Your task to perform on an android device: open device folders in google photos Image 0: 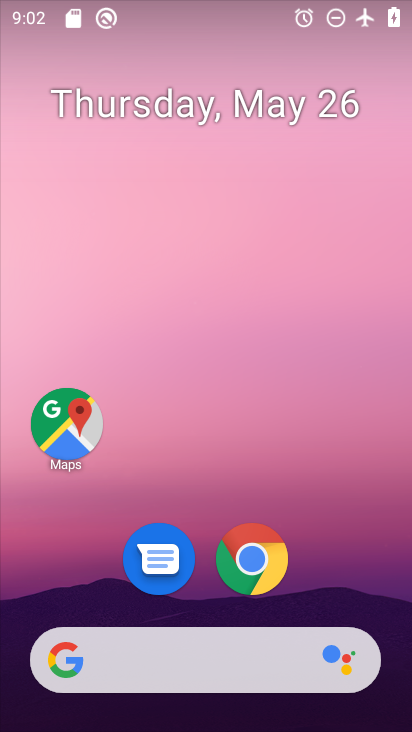
Step 0: drag from (201, 603) to (200, 81)
Your task to perform on an android device: open device folders in google photos Image 1: 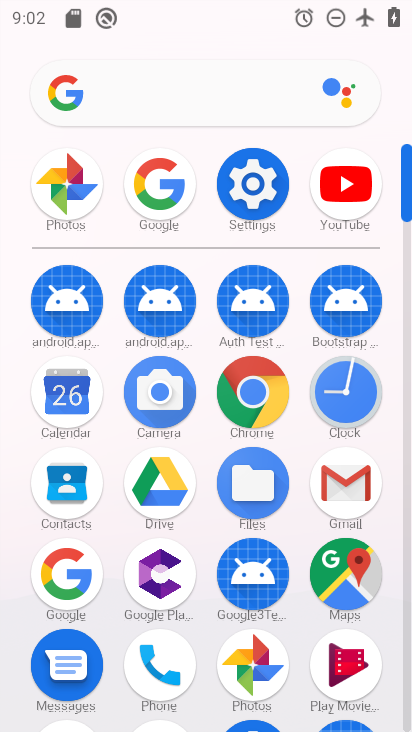
Step 1: click (66, 203)
Your task to perform on an android device: open device folders in google photos Image 2: 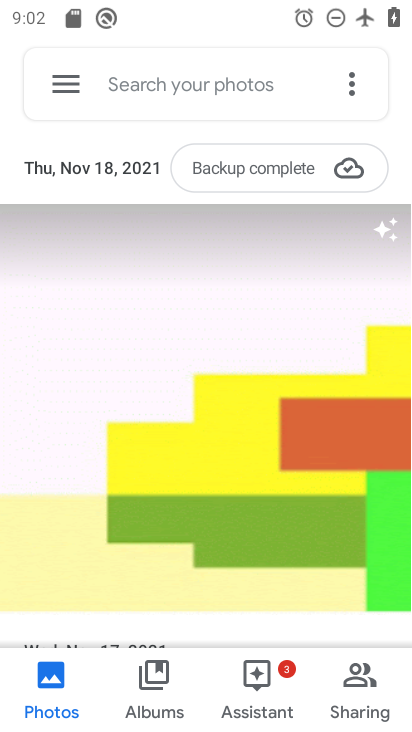
Step 2: click (66, 85)
Your task to perform on an android device: open device folders in google photos Image 3: 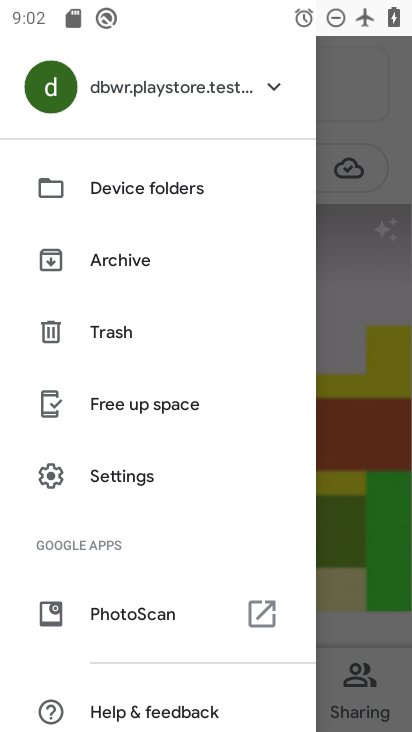
Step 3: click (139, 188)
Your task to perform on an android device: open device folders in google photos Image 4: 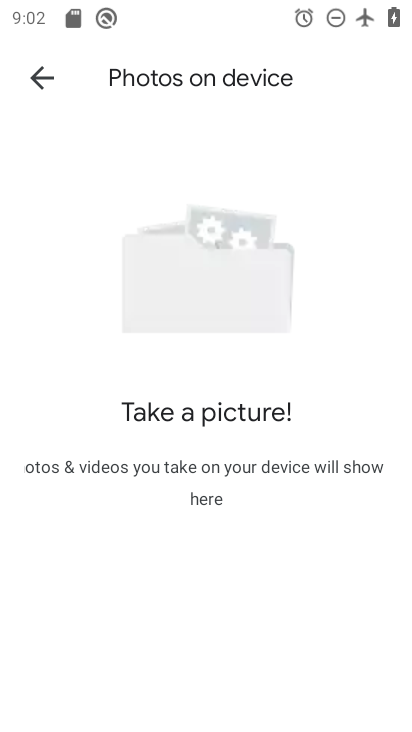
Step 4: task complete